Your task to perform on an android device: manage bookmarks in the chrome app Image 0: 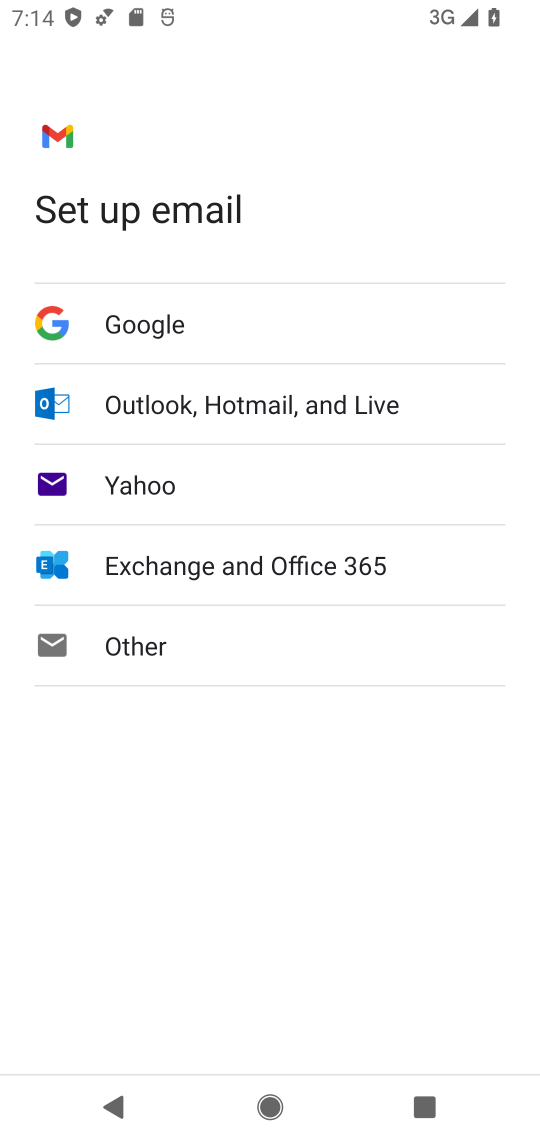
Step 0: press home button
Your task to perform on an android device: manage bookmarks in the chrome app Image 1: 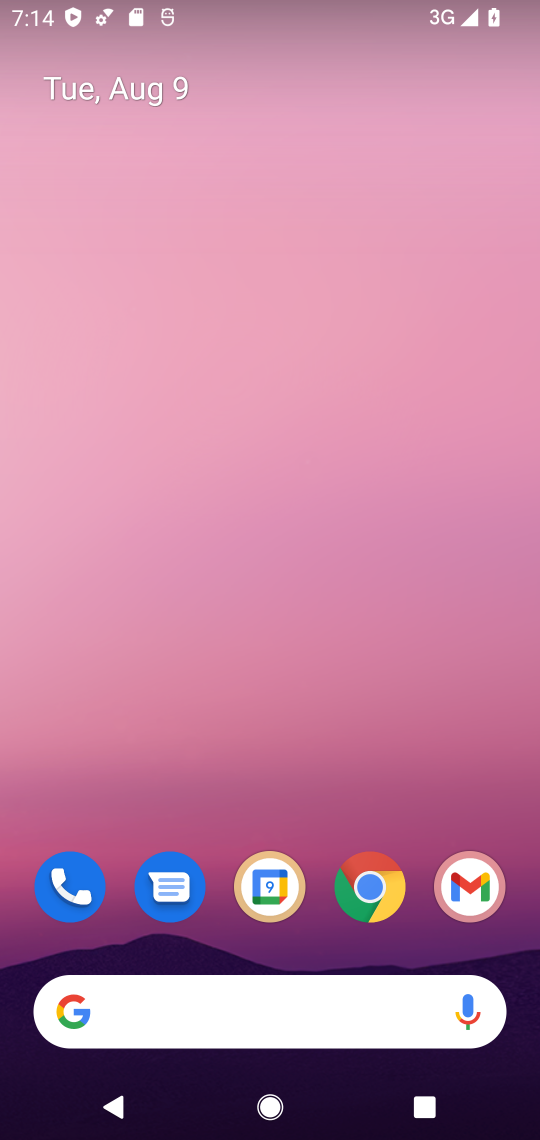
Step 1: click (377, 885)
Your task to perform on an android device: manage bookmarks in the chrome app Image 2: 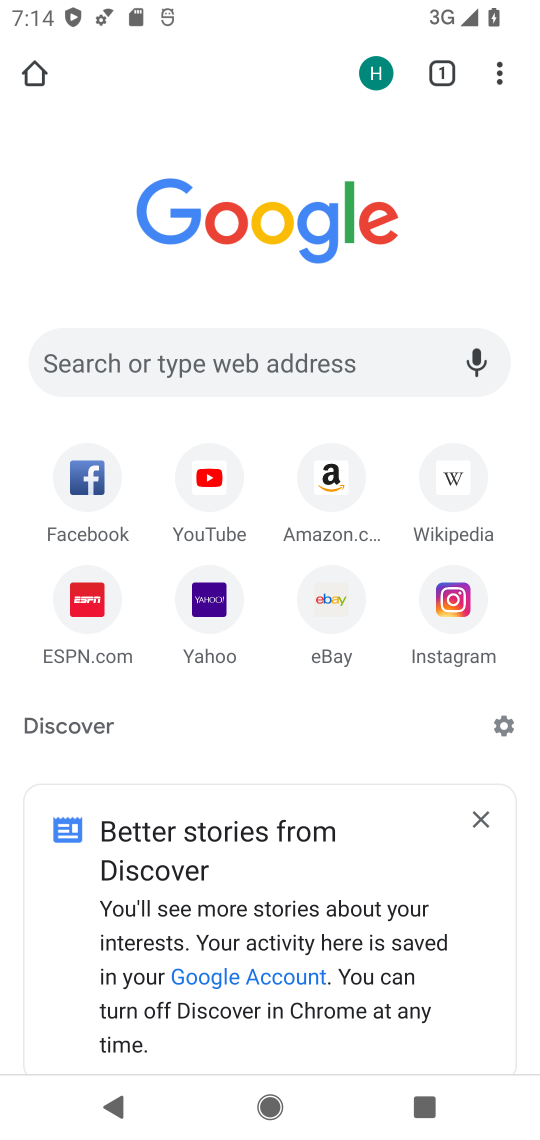
Step 2: click (497, 71)
Your task to perform on an android device: manage bookmarks in the chrome app Image 3: 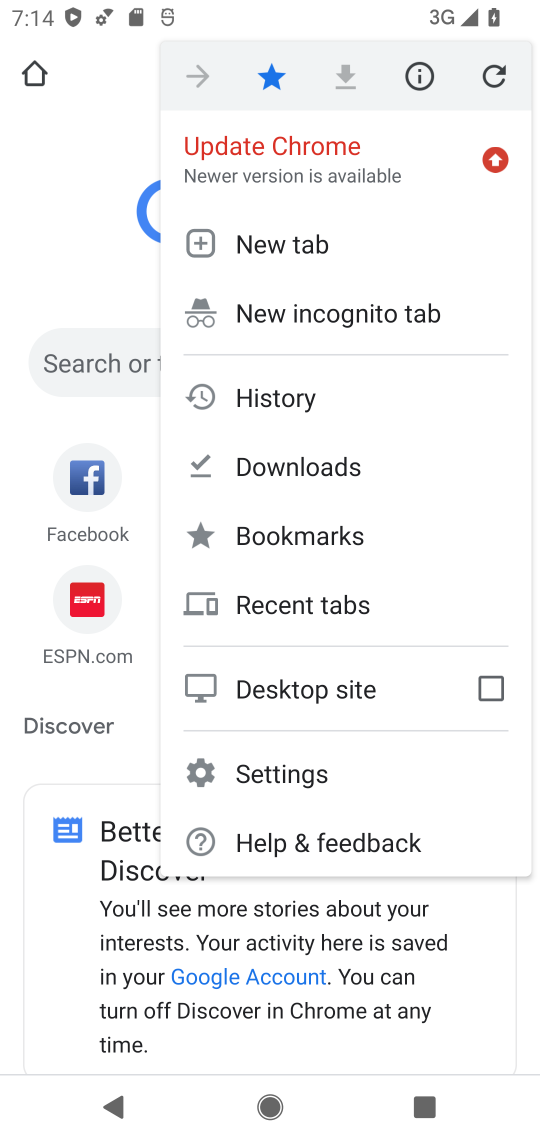
Step 3: click (366, 539)
Your task to perform on an android device: manage bookmarks in the chrome app Image 4: 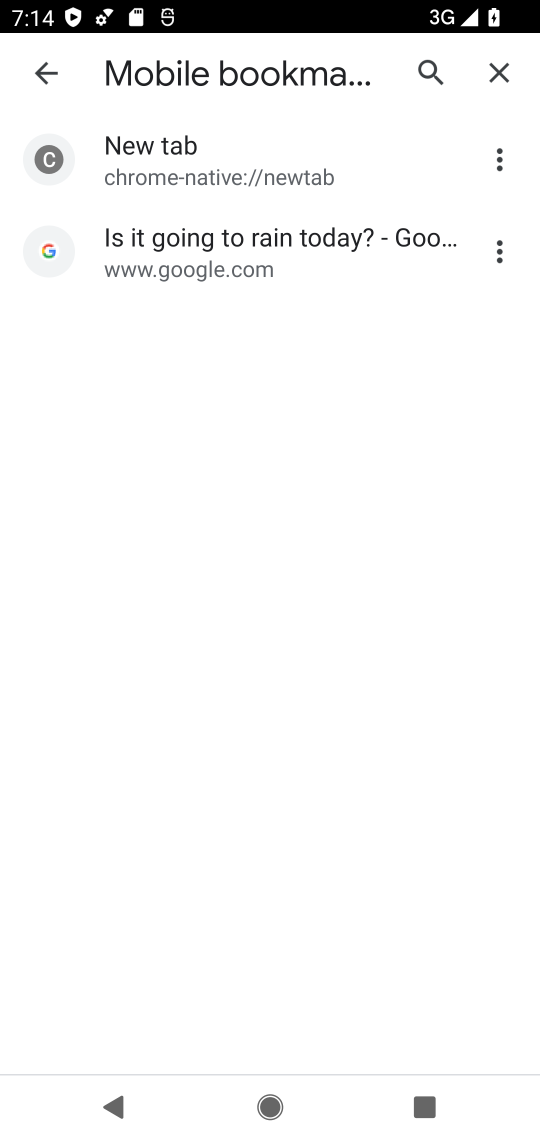
Step 4: click (497, 245)
Your task to perform on an android device: manage bookmarks in the chrome app Image 5: 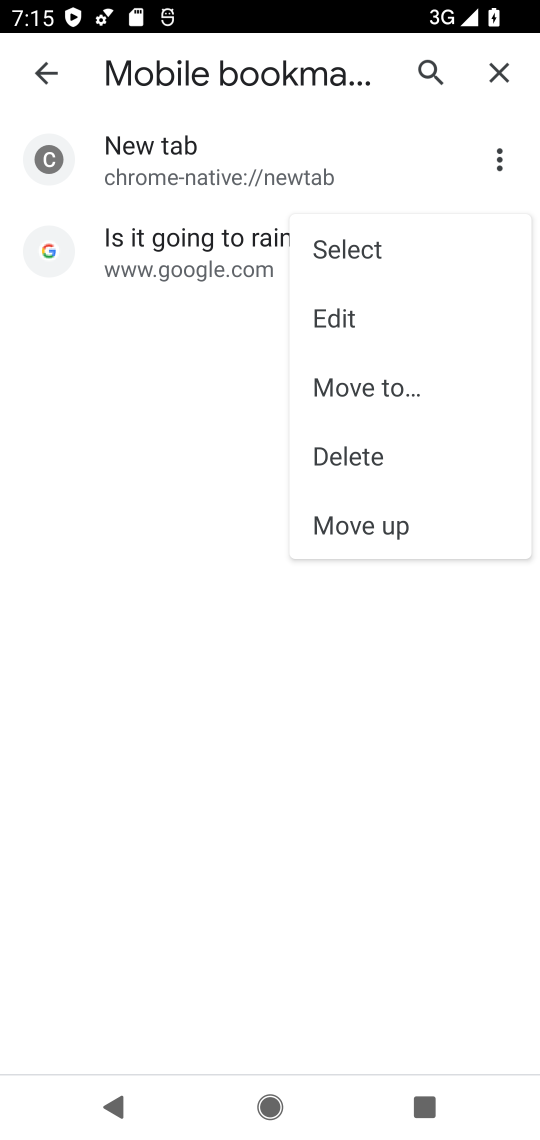
Step 5: click (380, 310)
Your task to perform on an android device: manage bookmarks in the chrome app Image 6: 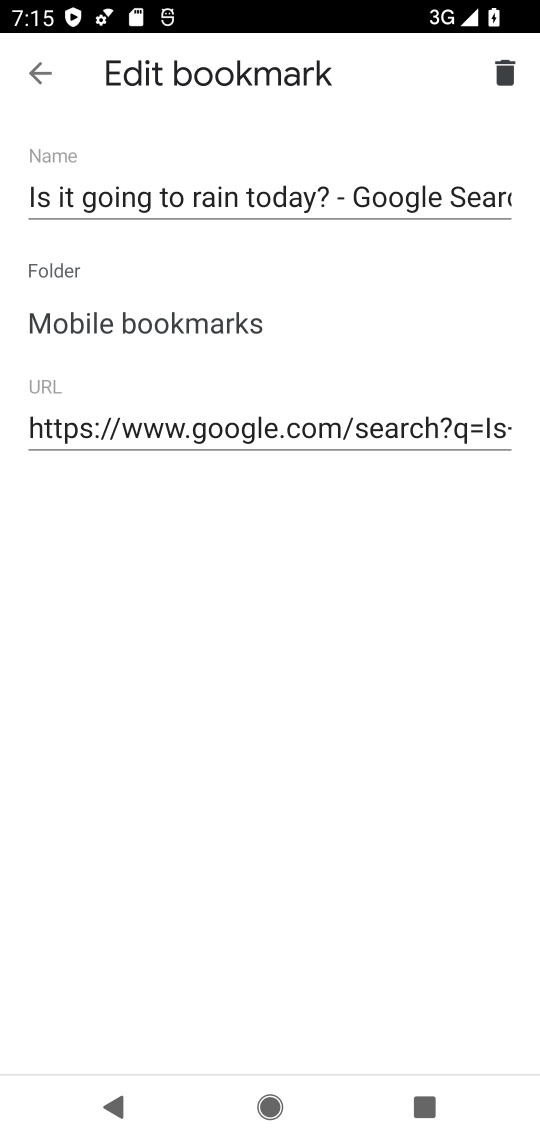
Step 6: task complete